Your task to perform on an android device: Open my contact list Image 0: 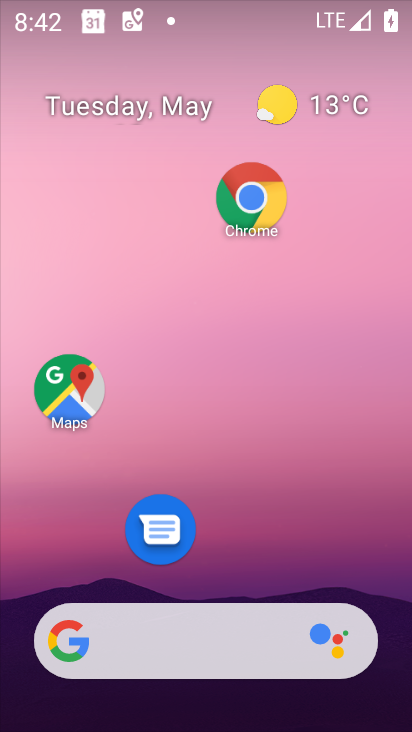
Step 0: drag from (324, 541) to (279, 65)
Your task to perform on an android device: Open my contact list Image 1: 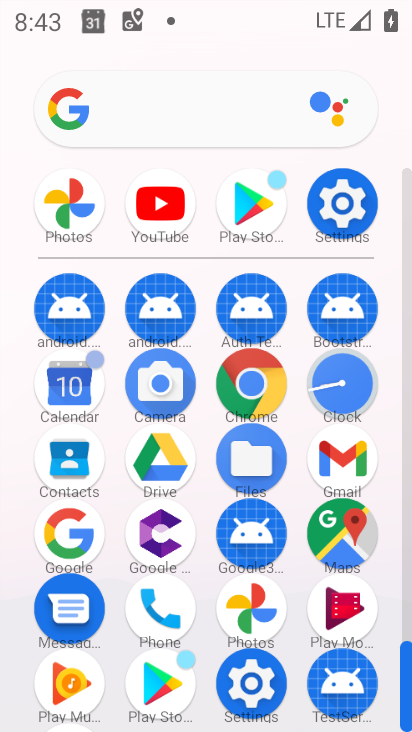
Step 1: click (80, 474)
Your task to perform on an android device: Open my contact list Image 2: 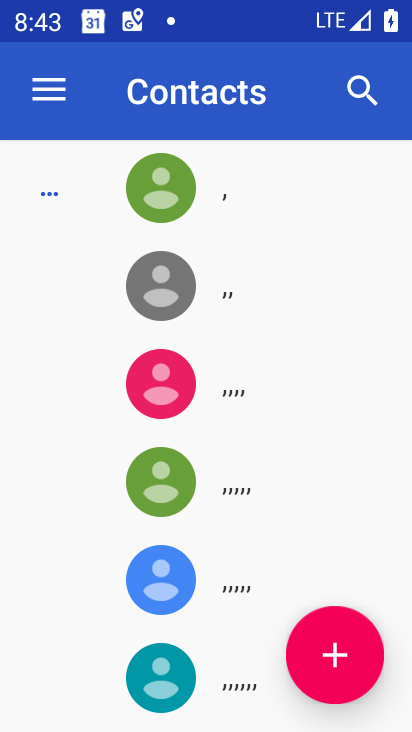
Step 2: task complete